Your task to perform on an android device: open app "Messages" Image 0: 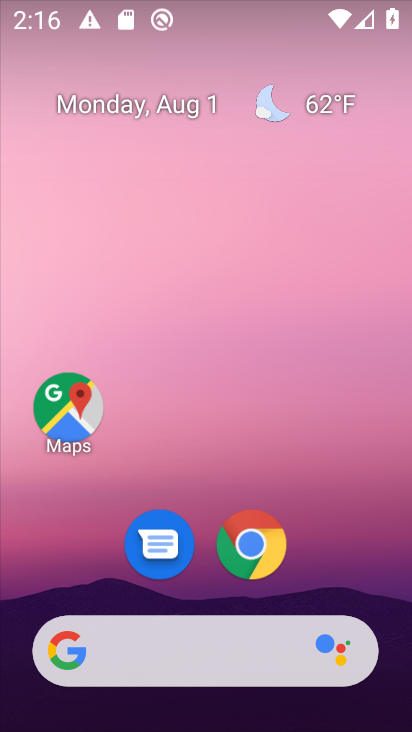
Step 0: drag from (371, 566) to (200, 7)
Your task to perform on an android device: open app "Messages" Image 1: 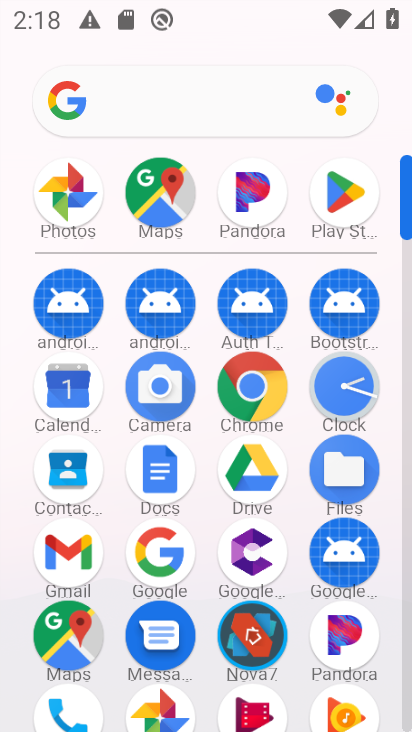
Step 1: click (358, 201)
Your task to perform on an android device: open app "Messages" Image 2: 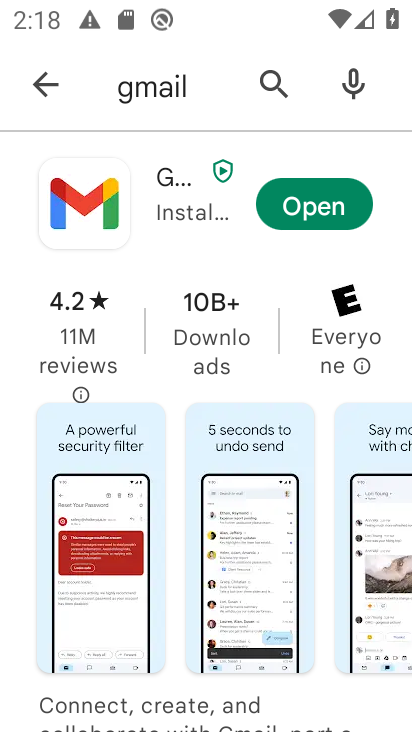
Step 2: press back button
Your task to perform on an android device: open app "Messages" Image 3: 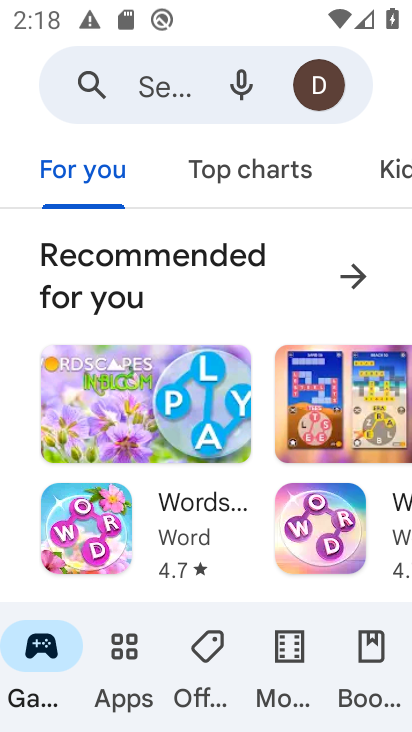
Step 3: click (151, 88)
Your task to perform on an android device: open app "Messages" Image 4: 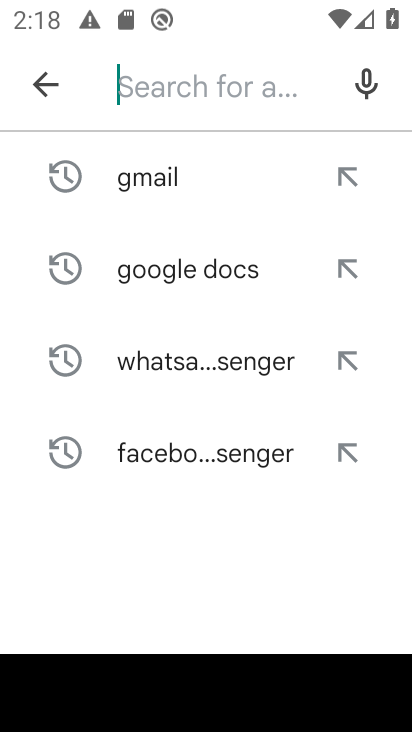
Step 4: type "Messages"
Your task to perform on an android device: open app "Messages" Image 5: 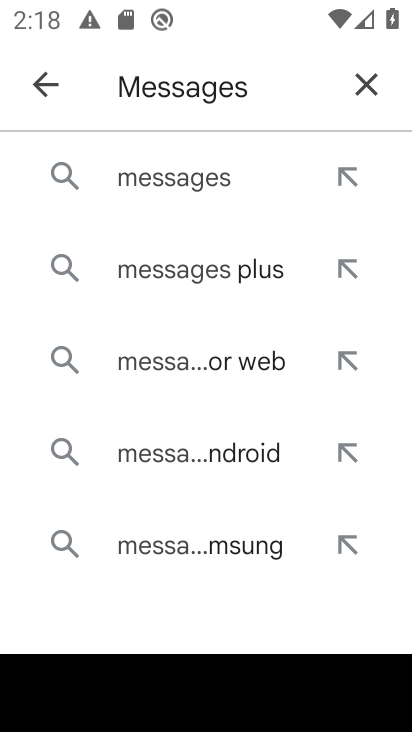
Step 5: click (148, 168)
Your task to perform on an android device: open app "Messages" Image 6: 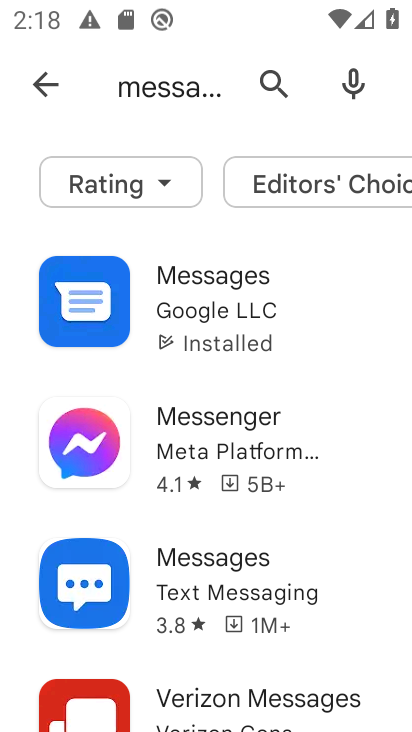
Step 6: click (329, 301)
Your task to perform on an android device: open app "Messages" Image 7: 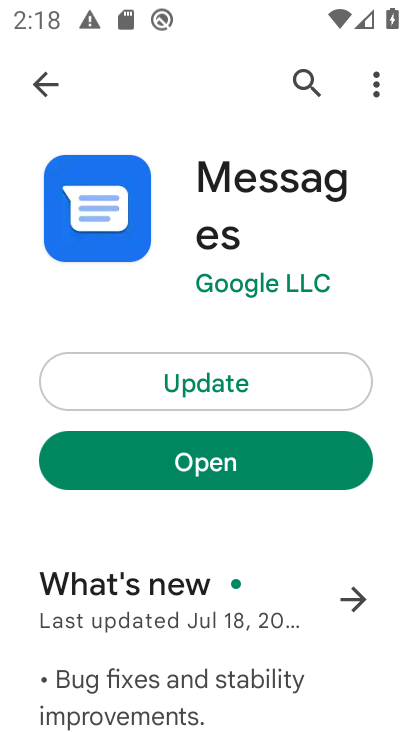
Step 7: click (169, 487)
Your task to perform on an android device: open app "Messages" Image 8: 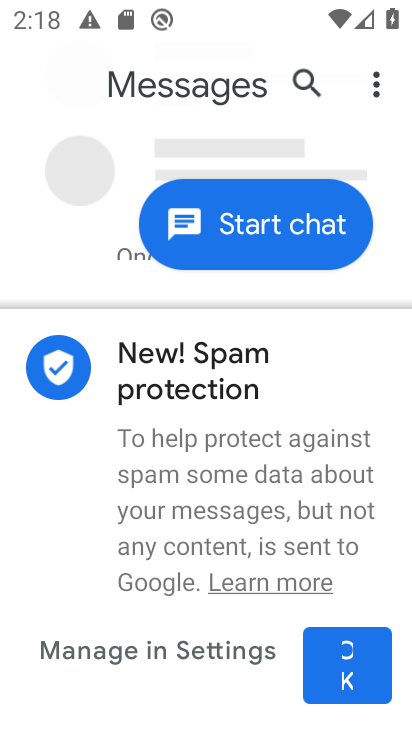
Step 8: task complete